Your task to perform on an android device: Is it going to rain this weekend? Image 0: 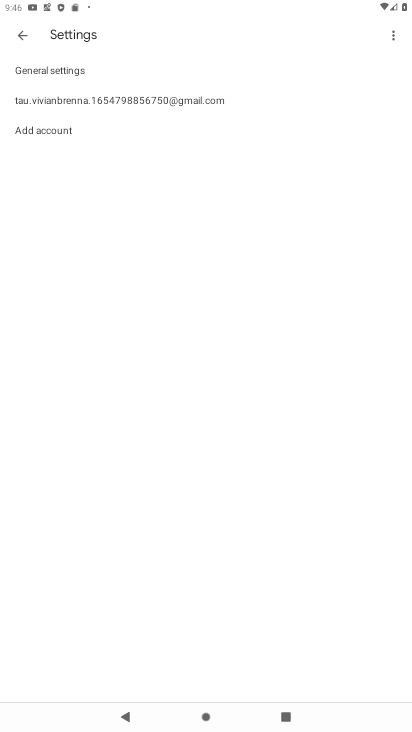
Step 0: press home button
Your task to perform on an android device: Is it going to rain this weekend? Image 1: 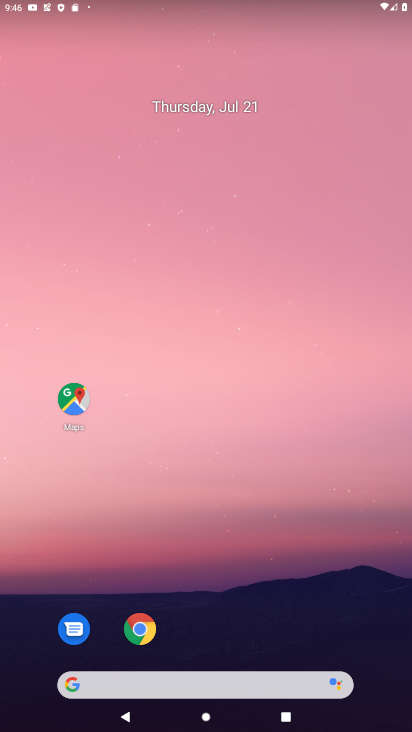
Step 1: click (178, 676)
Your task to perform on an android device: Is it going to rain this weekend? Image 2: 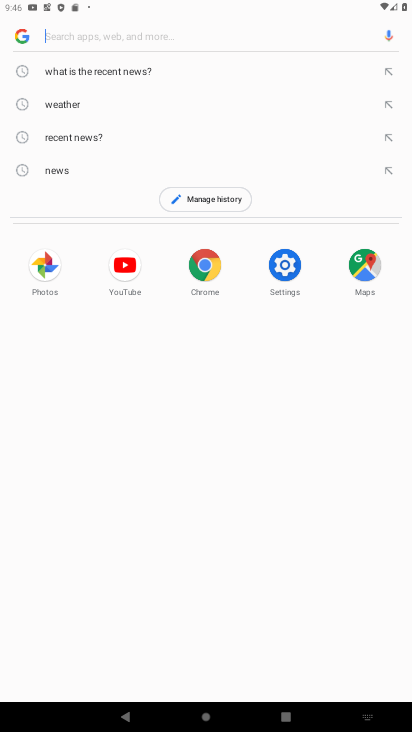
Step 2: click (91, 114)
Your task to perform on an android device: Is it going to rain this weekend? Image 3: 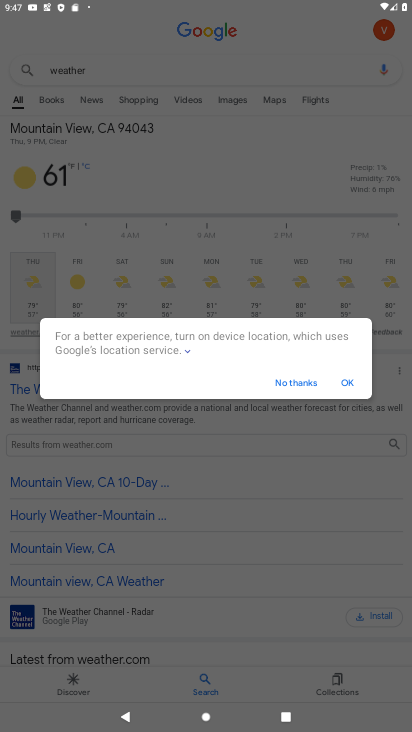
Step 3: click (358, 388)
Your task to perform on an android device: Is it going to rain this weekend? Image 4: 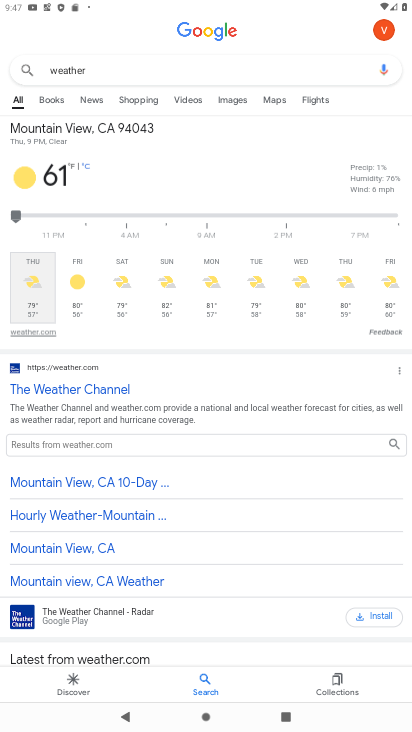
Step 4: click (172, 294)
Your task to perform on an android device: Is it going to rain this weekend? Image 5: 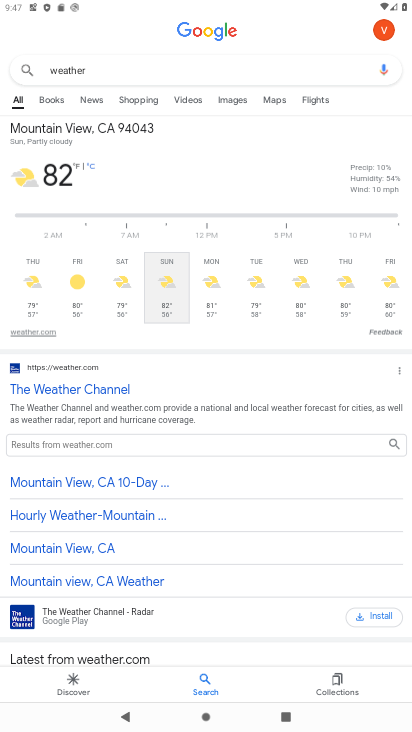
Step 5: task complete